Your task to perform on an android device: Search for "razer thresher" on target, select the first entry, and add it to the cart. Image 0: 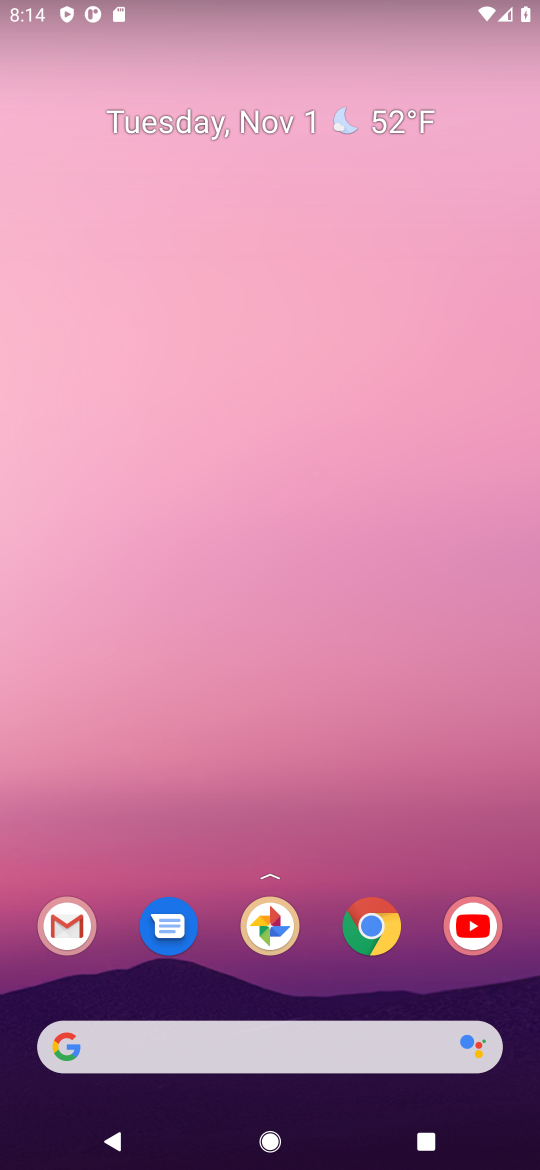
Step 0: click (374, 927)
Your task to perform on an android device: Search for "razer thresher" on target, select the first entry, and add it to the cart. Image 1: 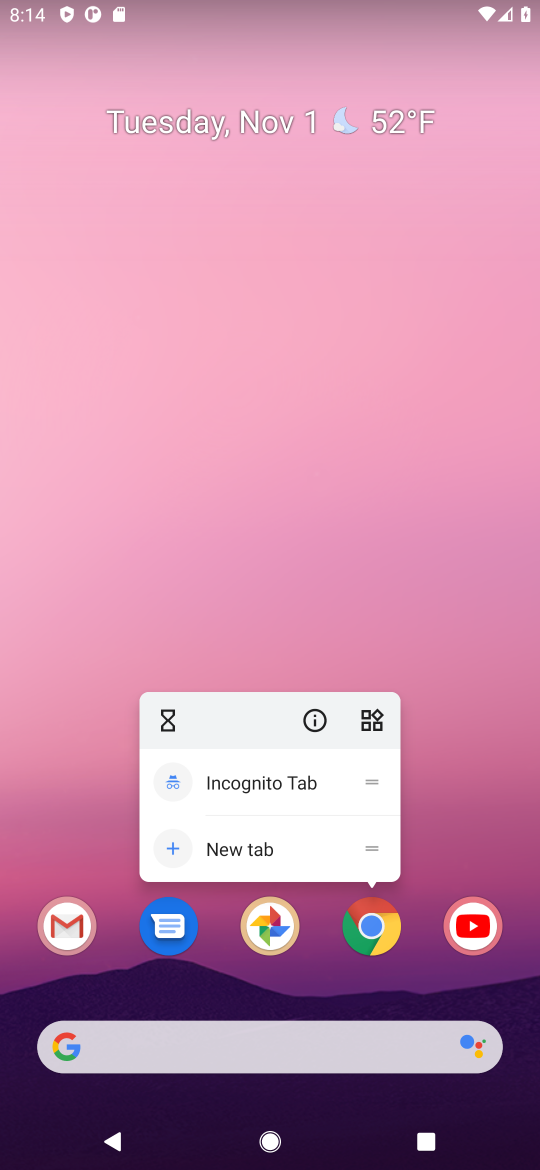
Step 1: click (363, 931)
Your task to perform on an android device: Search for "razer thresher" on target, select the first entry, and add it to the cart. Image 2: 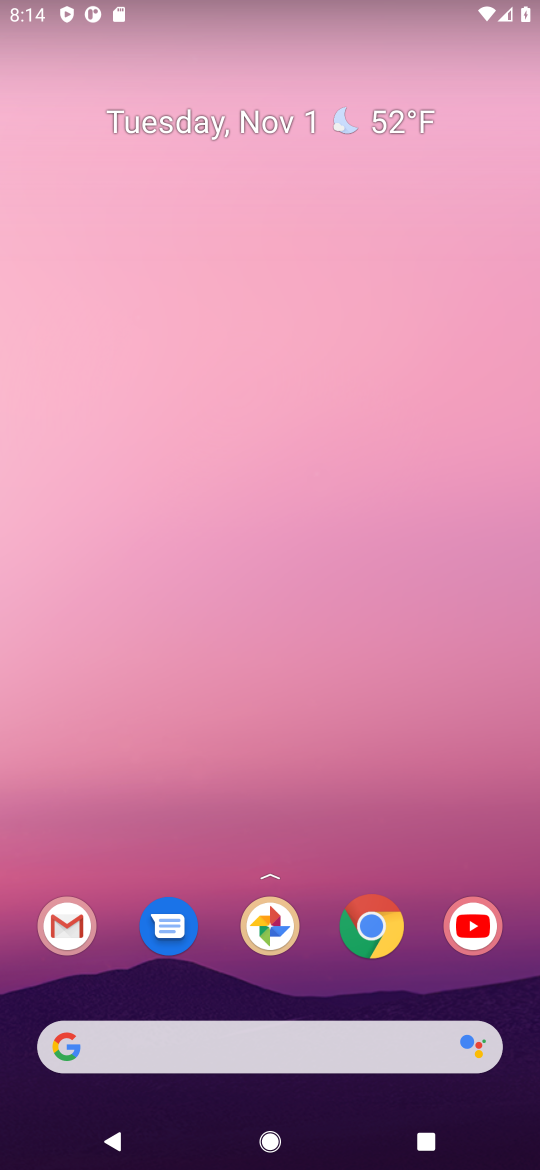
Step 2: click (363, 928)
Your task to perform on an android device: Search for "razer thresher" on target, select the first entry, and add it to the cart. Image 3: 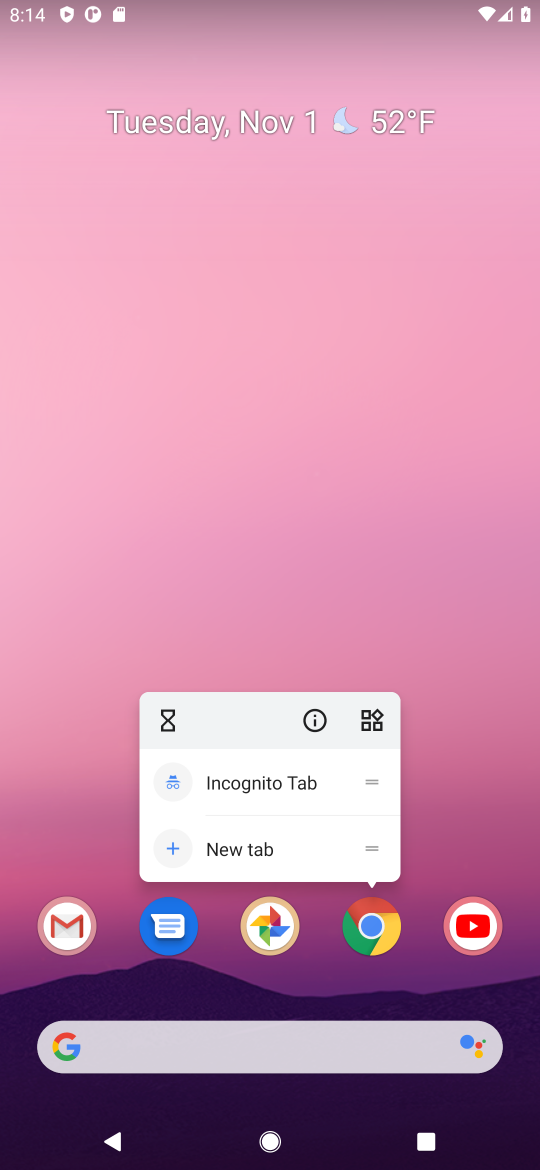
Step 3: click (387, 933)
Your task to perform on an android device: Search for "razer thresher" on target, select the first entry, and add it to the cart. Image 4: 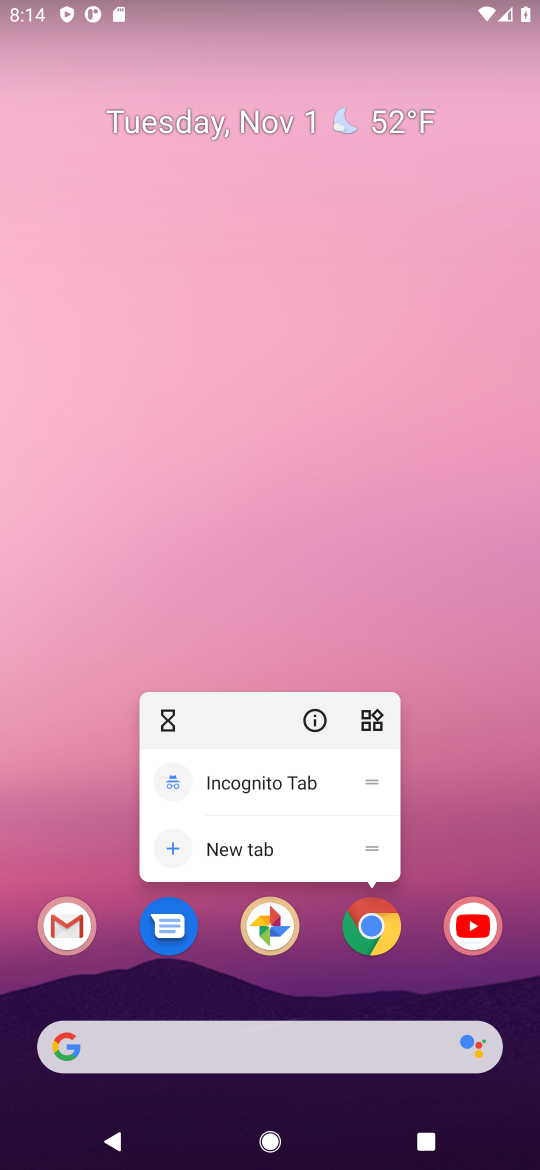
Step 4: press home button
Your task to perform on an android device: Search for "razer thresher" on target, select the first entry, and add it to the cart. Image 5: 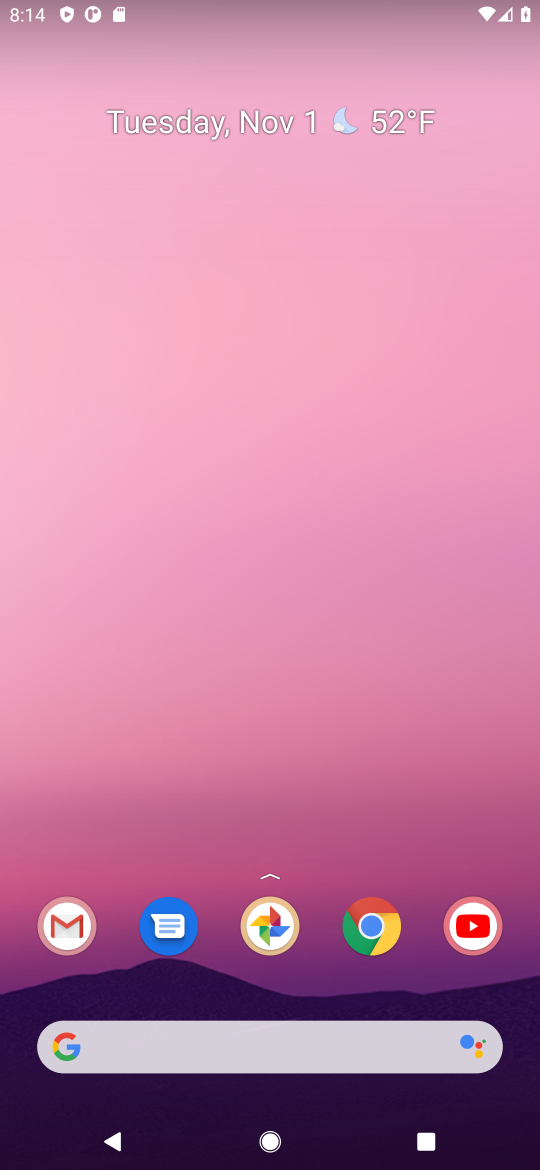
Step 5: press home button
Your task to perform on an android device: Search for "razer thresher" on target, select the first entry, and add it to the cart. Image 6: 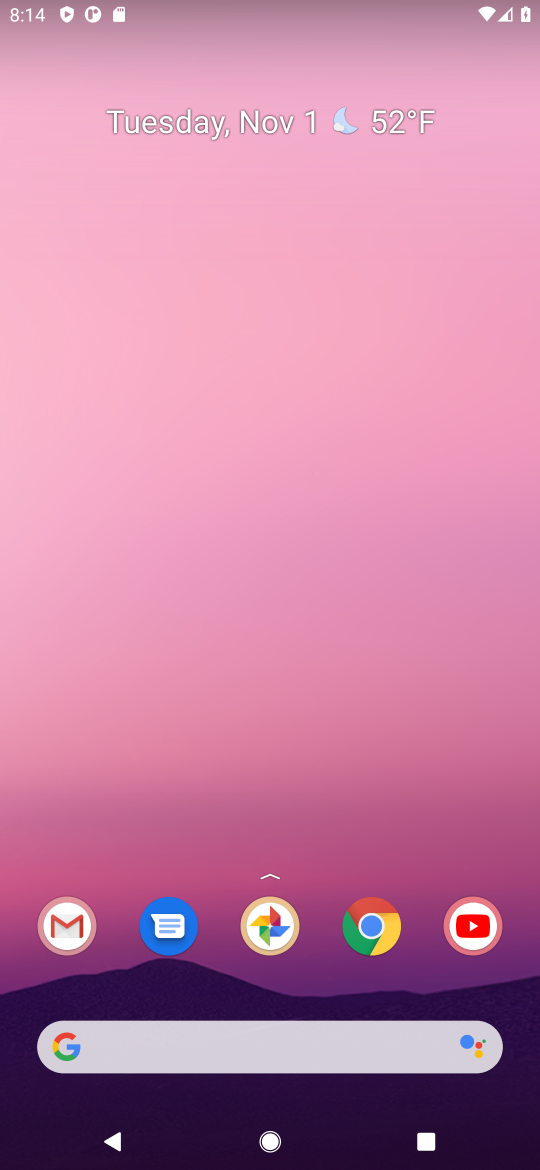
Step 6: click (377, 936)
Your task to perform on an android device: Search for "razer thresher" on target, select the first entry, and add it to the cart. Image 7: 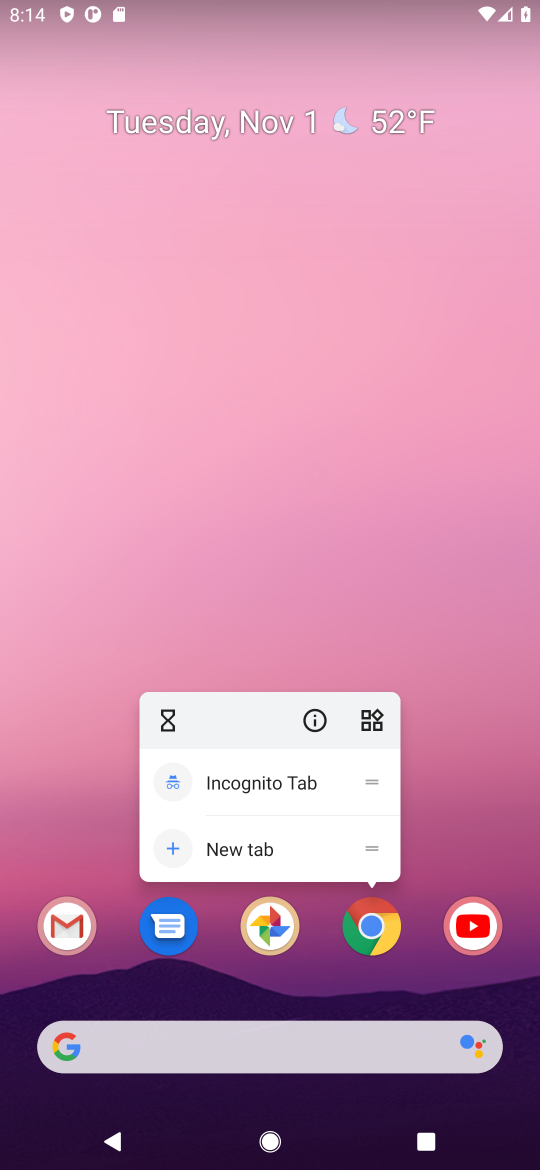
Step 7: click (379, 948)
Your task to perform on an android device: Search for "razer thresher" on target, select the first entry, and add it to the cart. Image 8: 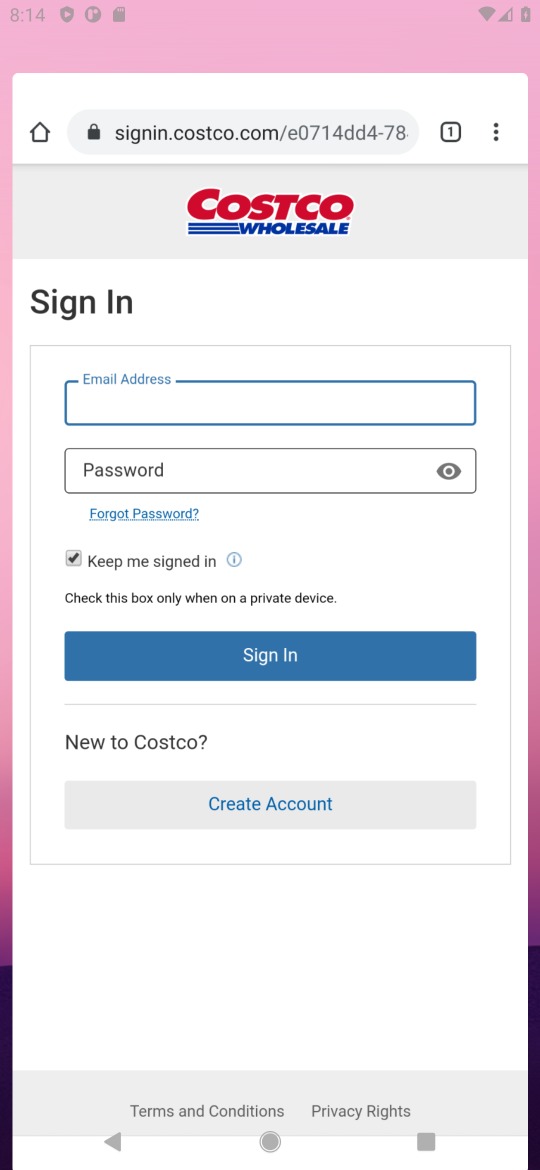
Step 8: click (379, 948)
Your task to perform on an android device: Search for "razer thresher" on target, select the first entry, and add it to the cart. Image 9: 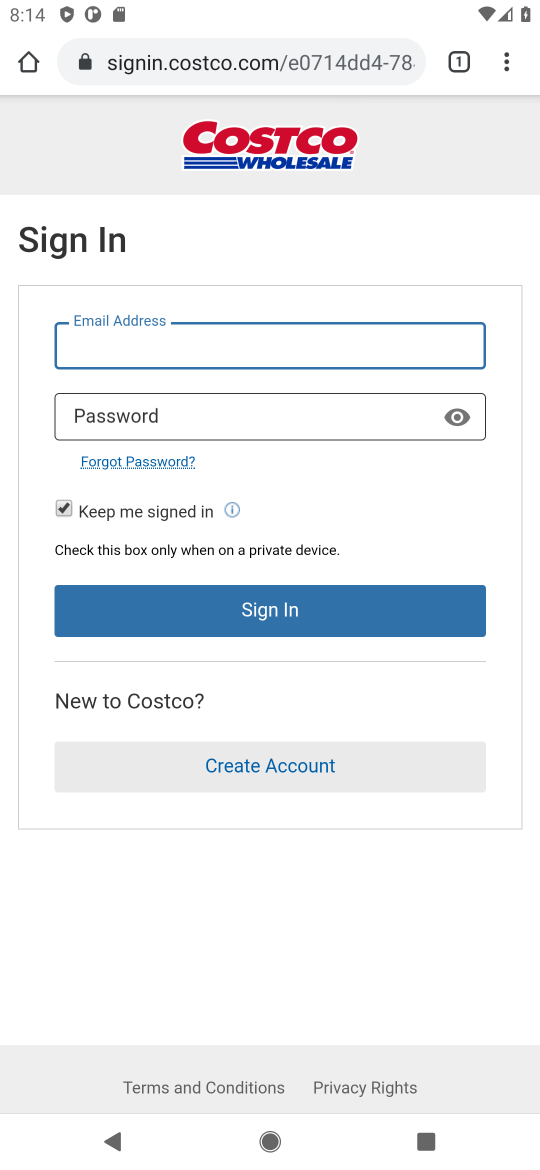
Step 9: click (200, 55)
Your task to perform on an android device: Search for "razer thresher" on target, select the first entry, and add it to the cart. Image 10: 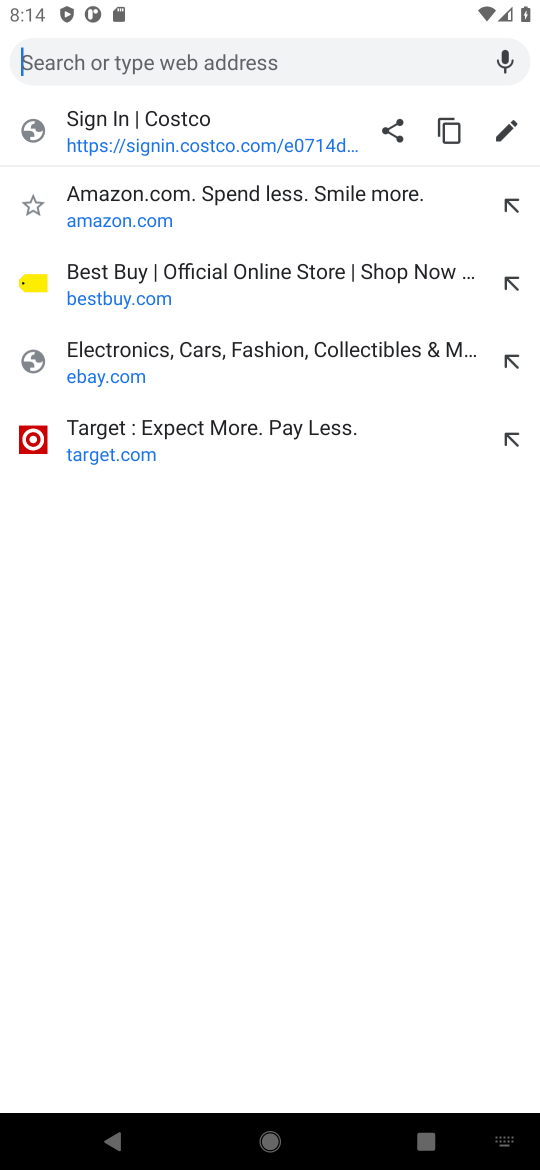
Step 10: type "target"
Your task to perform on an android device: Search for "razer thresher" on target, select the first entry, and add it to the cart. Image 11: 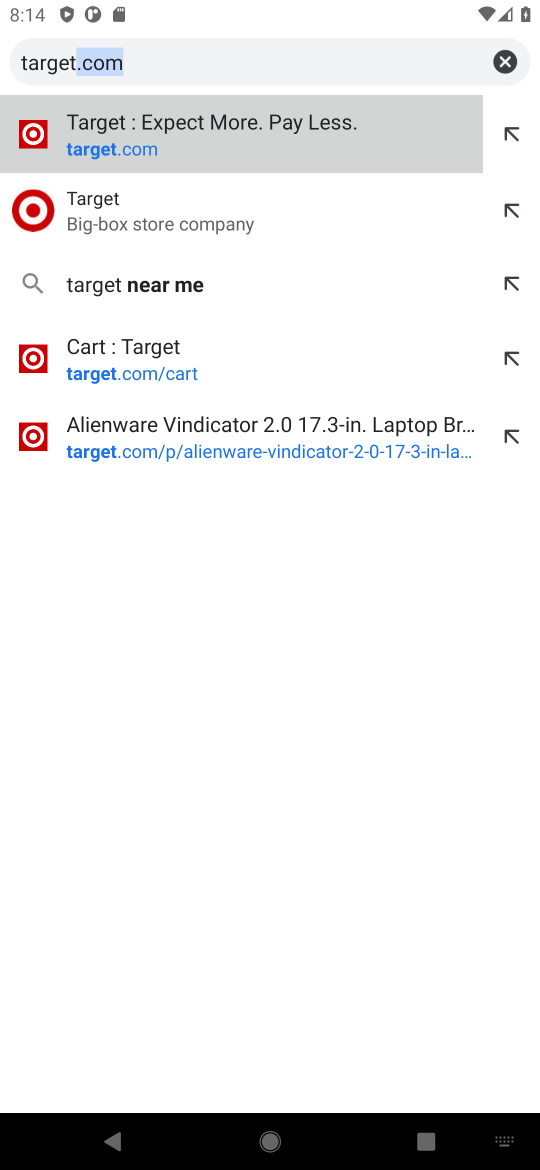
Step 11: type ""
Your task to perform on an android device: Search for "razer thresher" on target, select the first entry, and add it to the cart. Image 12: 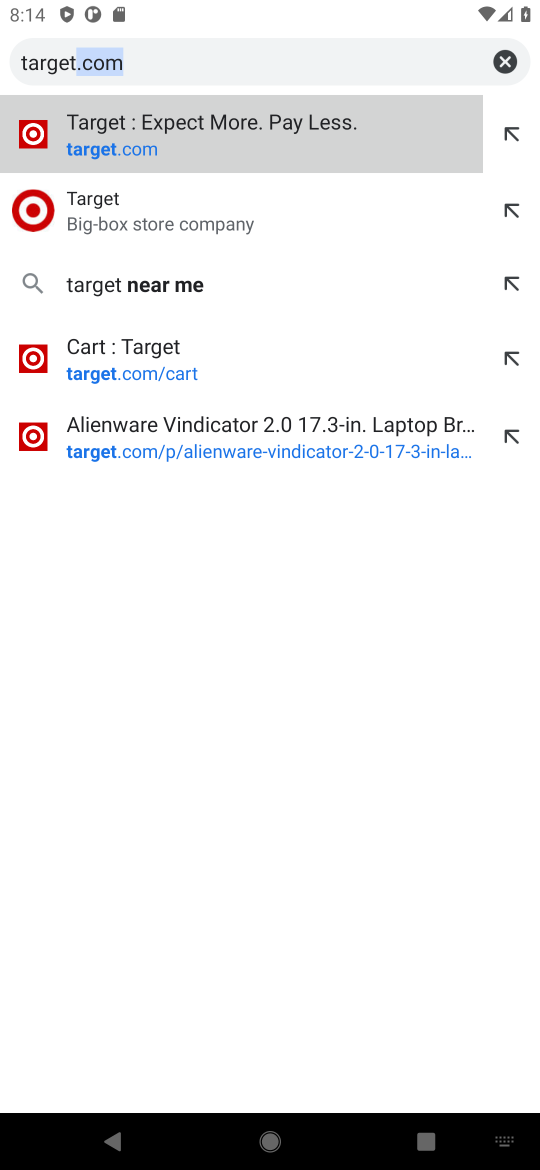
Step 12: click (142, 132)
Your task to perform on an android device: Search for "razer thresher" on target, select the first entry, and add it to the cart. Image 13: 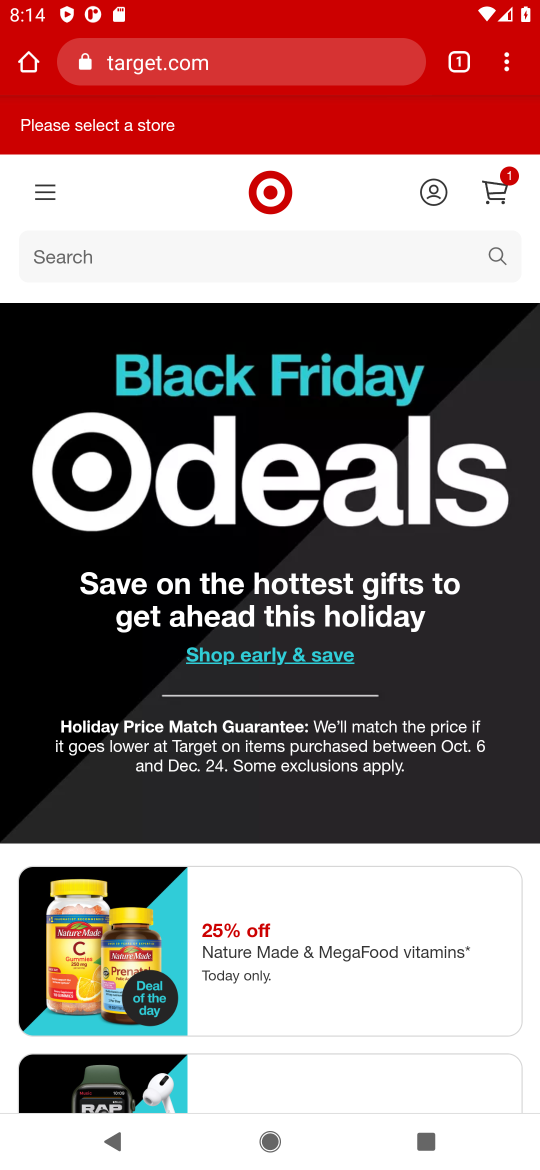
Step 13: click (495, 247)
Your task to perform on an android device: Search for "razer thresher" on target, select the first entry, and add it to the cart. Image 14: 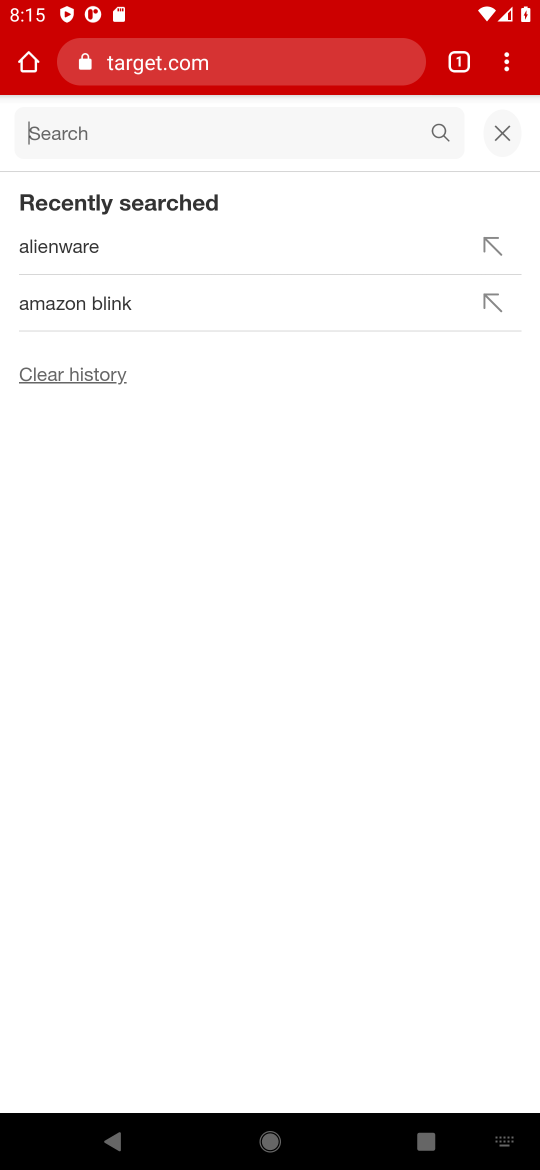
Step 14: type "razer thresher"
Your task to perform on an android device: Search for "razer thresher" on target, select the first entry, and add it to the cart. Image 15: 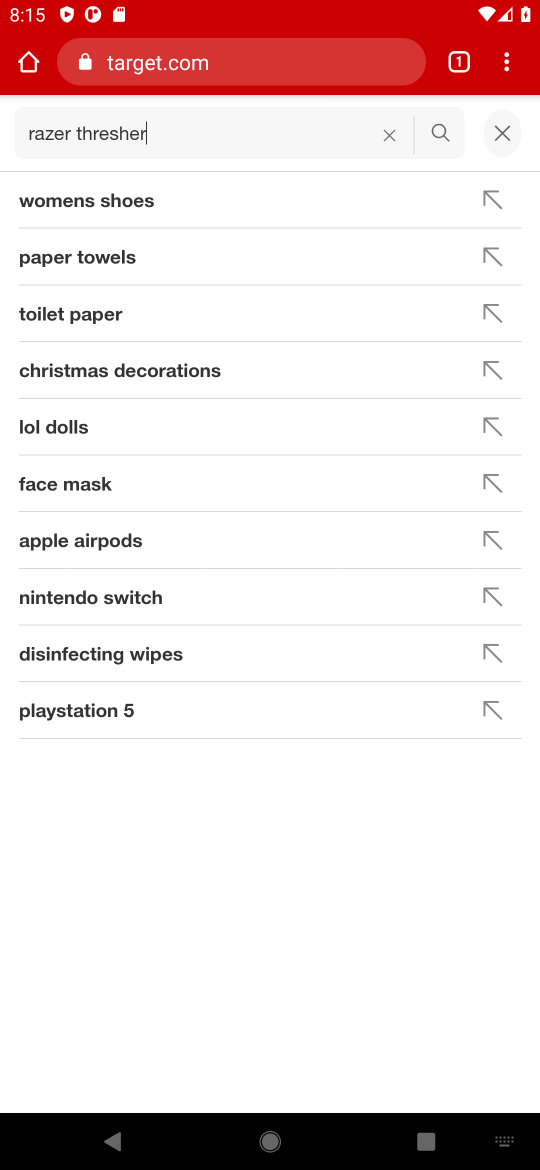
Step 15: type ""
Your task to perform on an android device: Search for "razer thresher" on target, select the first entry, and add it to the cart. Image 16: 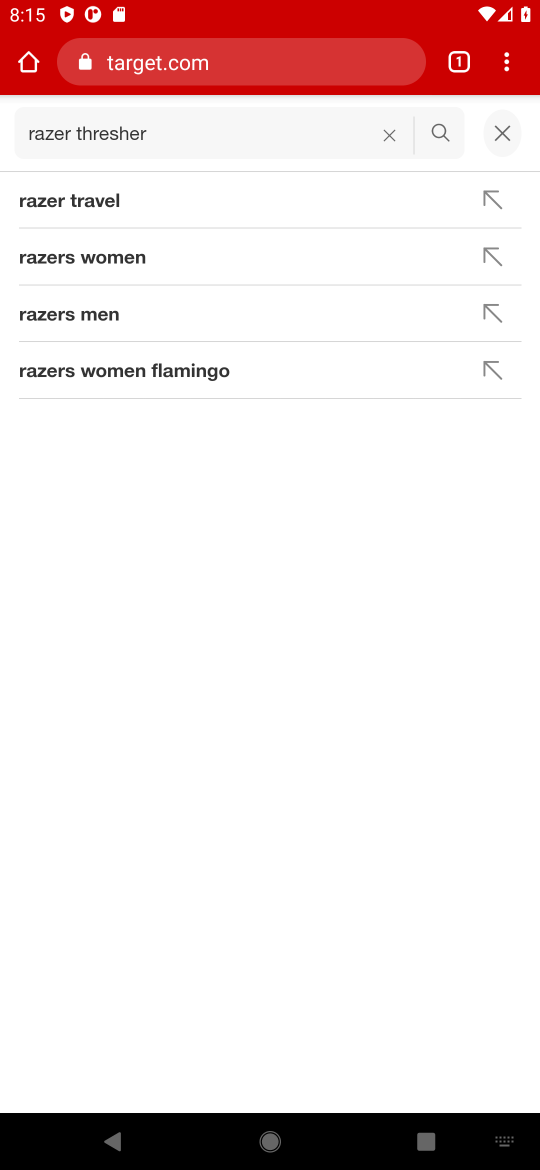
Step 16: click (106, 371)
Your task to perform on an android device: Search for "razer thresher" on target, select the first entry, and add it to the cart. Image 17: 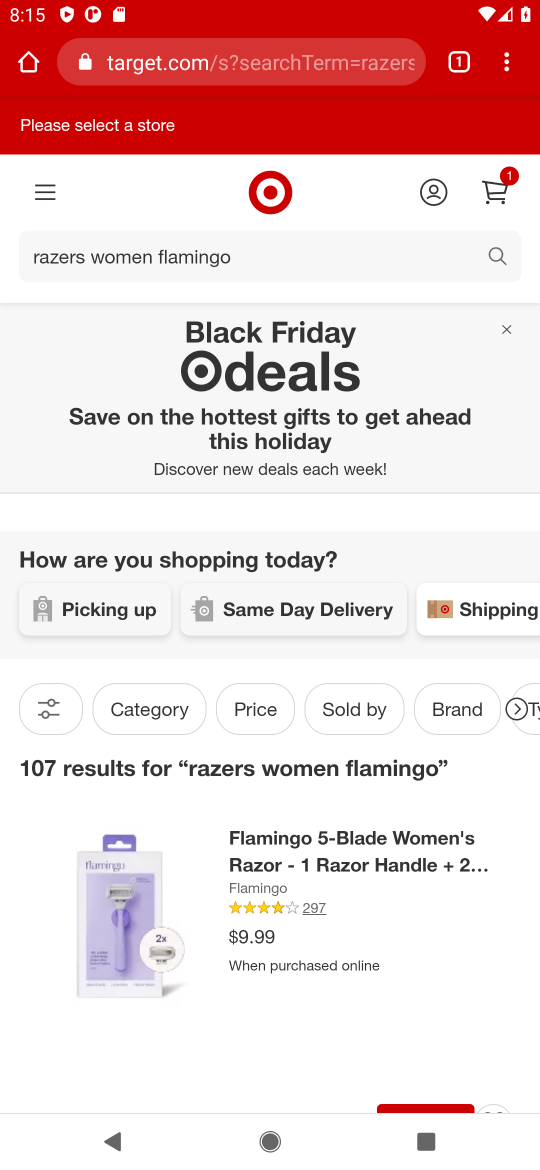
Step 17: drag from (217, 1020) to (210, 286)
Your task to perform on an android device: Search for "razer thresher" on target, select the first entry, and add it to the cart. Image 18: 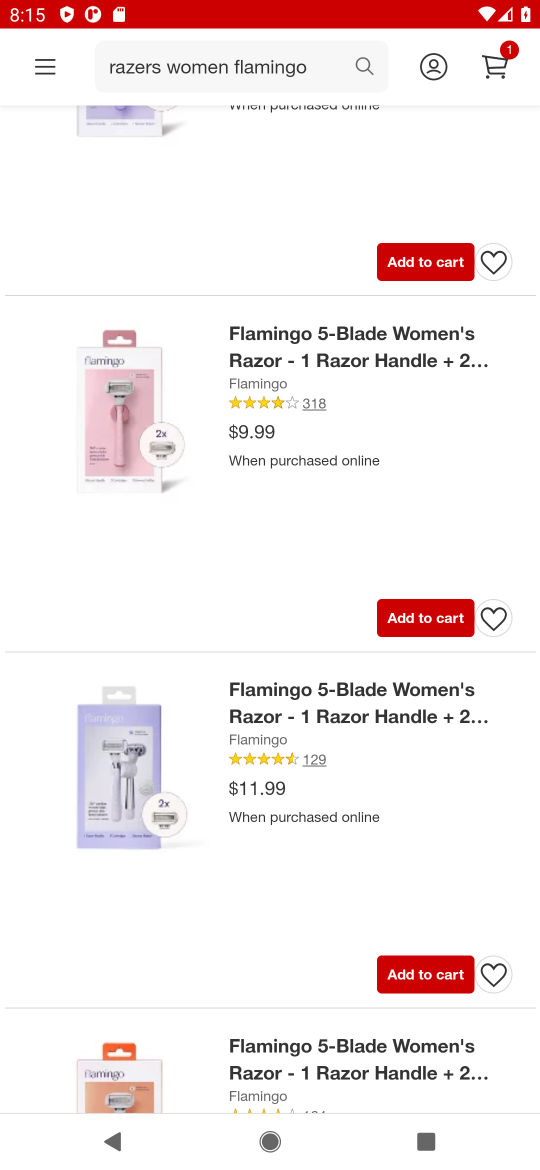
Step 18: click (302, 741)
Your task to perform on an android device: Search for "razer thresher" on target, select the first entry, and add it to the cart. Image 19: 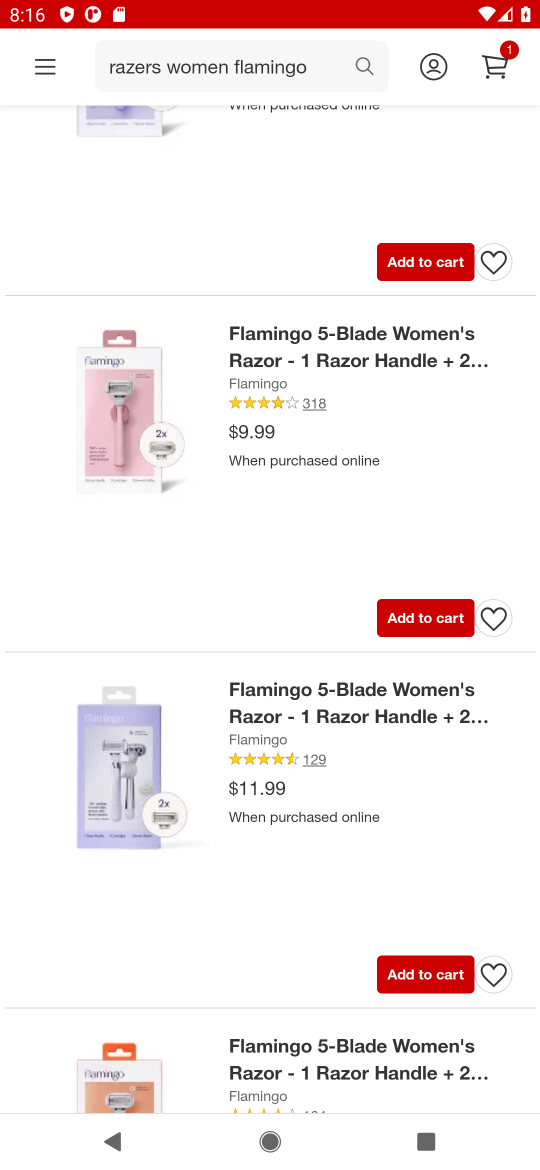
Step 19: drag from (176, 830) to (190, 593)
Your task to perform on an android device: Search for "razer thresher" on target, select the first entry, and add it to the cart. Image 20: 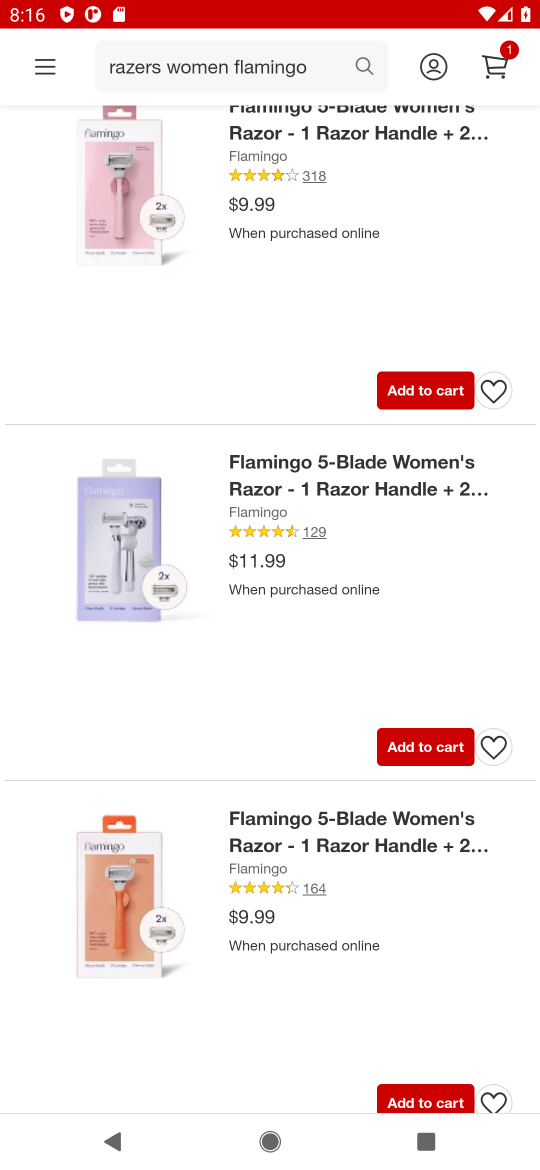
Step 20: click (445, 759)
Your task to perform on an android device: Search for "razer thresher" on target, select the first entry, and add it to the cart. Image 21: 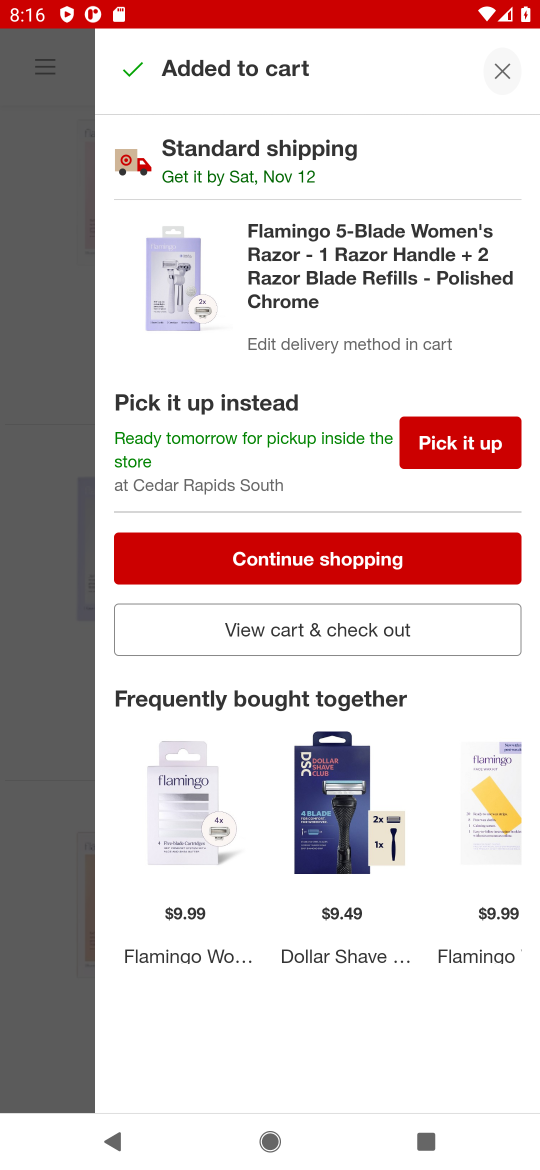
Step 21: click (239, 626)
Your task to perform on an android device: Search for "razer thresher" on target, select the first entry, and add it to the cart. Image 22: 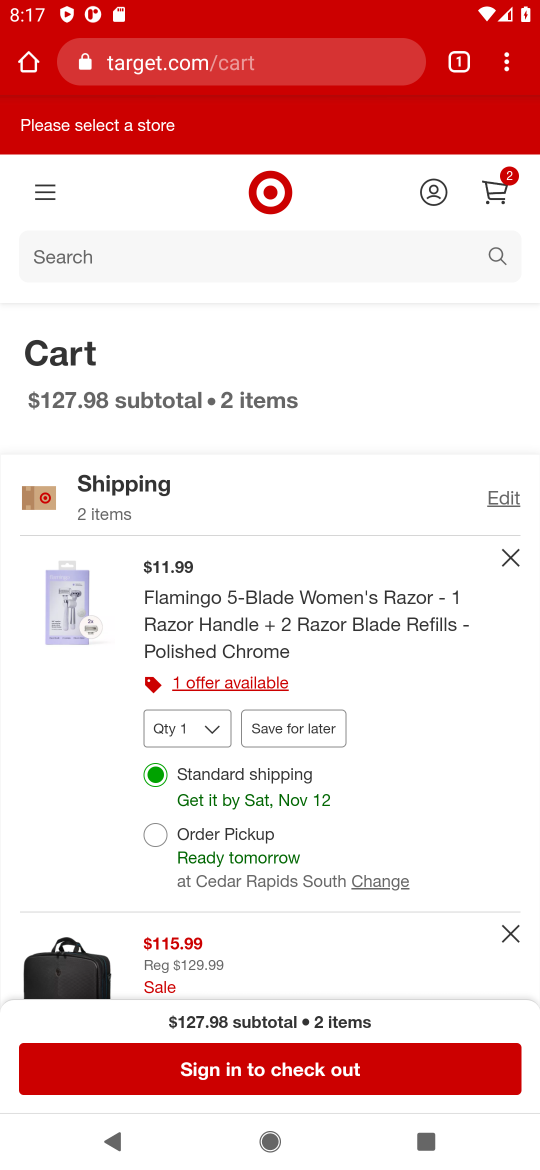
Step 22: drag from (222, 961) to (209, 520)
Your task to perform on an android device: Search for "razer thresher" on target, select the first entry, and add it to the cart. Image 23: 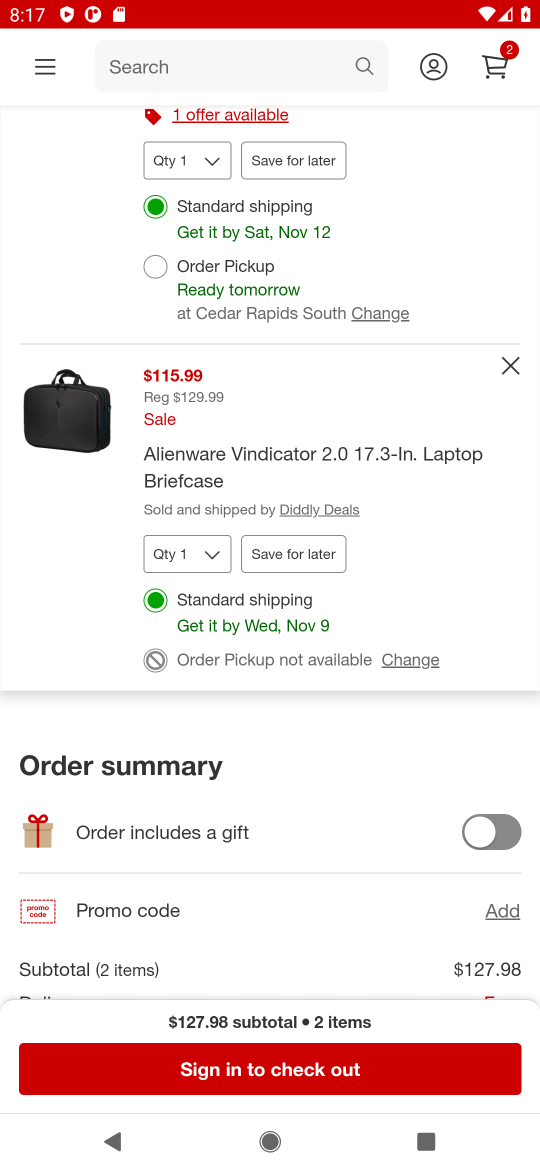
Step 23: click (241, 1052)
Your task to perform on an android device: Search for "razer thresher" on target, select the first entry, and add it to the cart. Image 24: 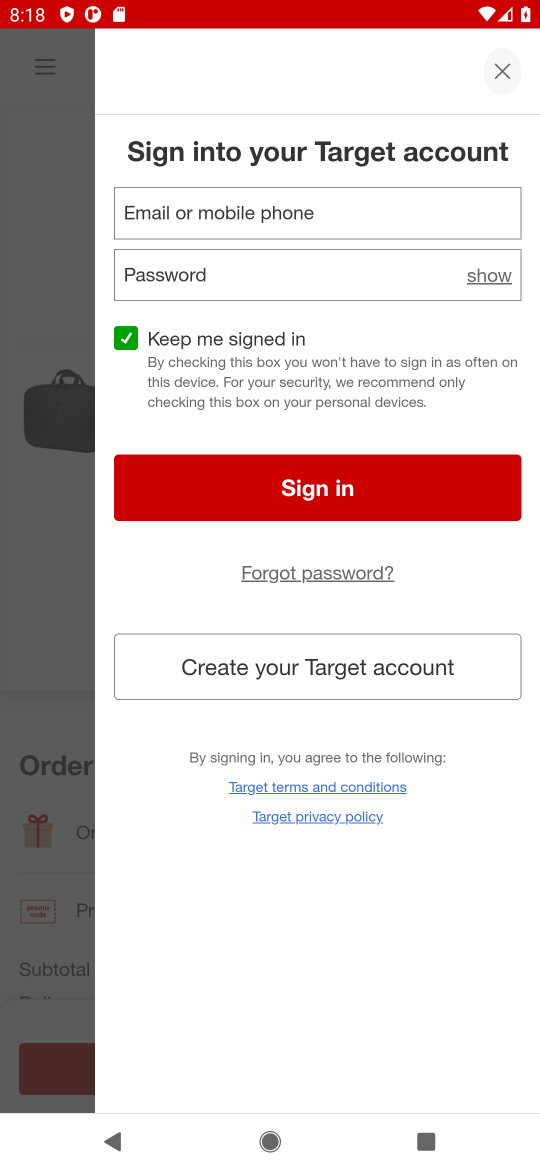
Step 24: task complete